Your task to perform on an android device: Show me recent news Image 0: 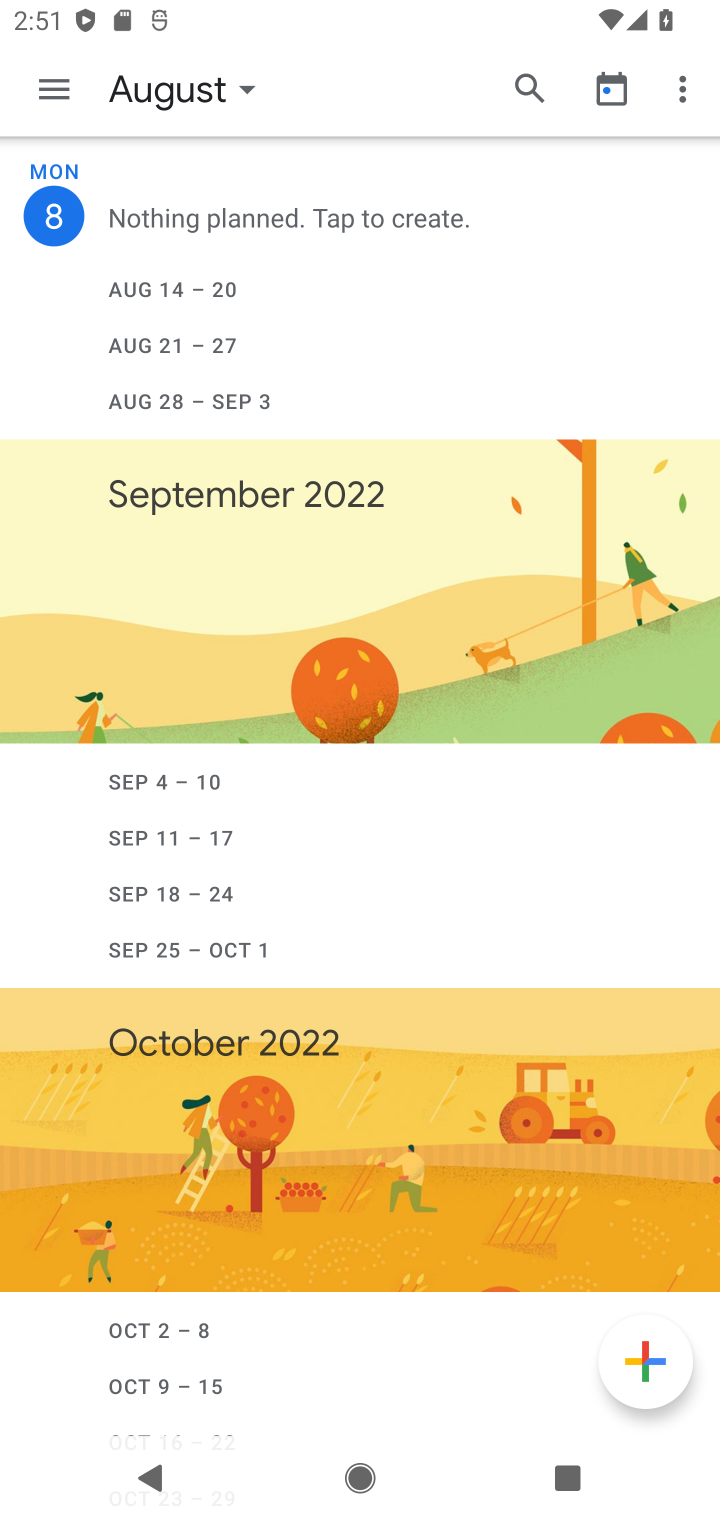
Step 0: press home button
Your task to perform on an android device: Show me recent news Image 1: 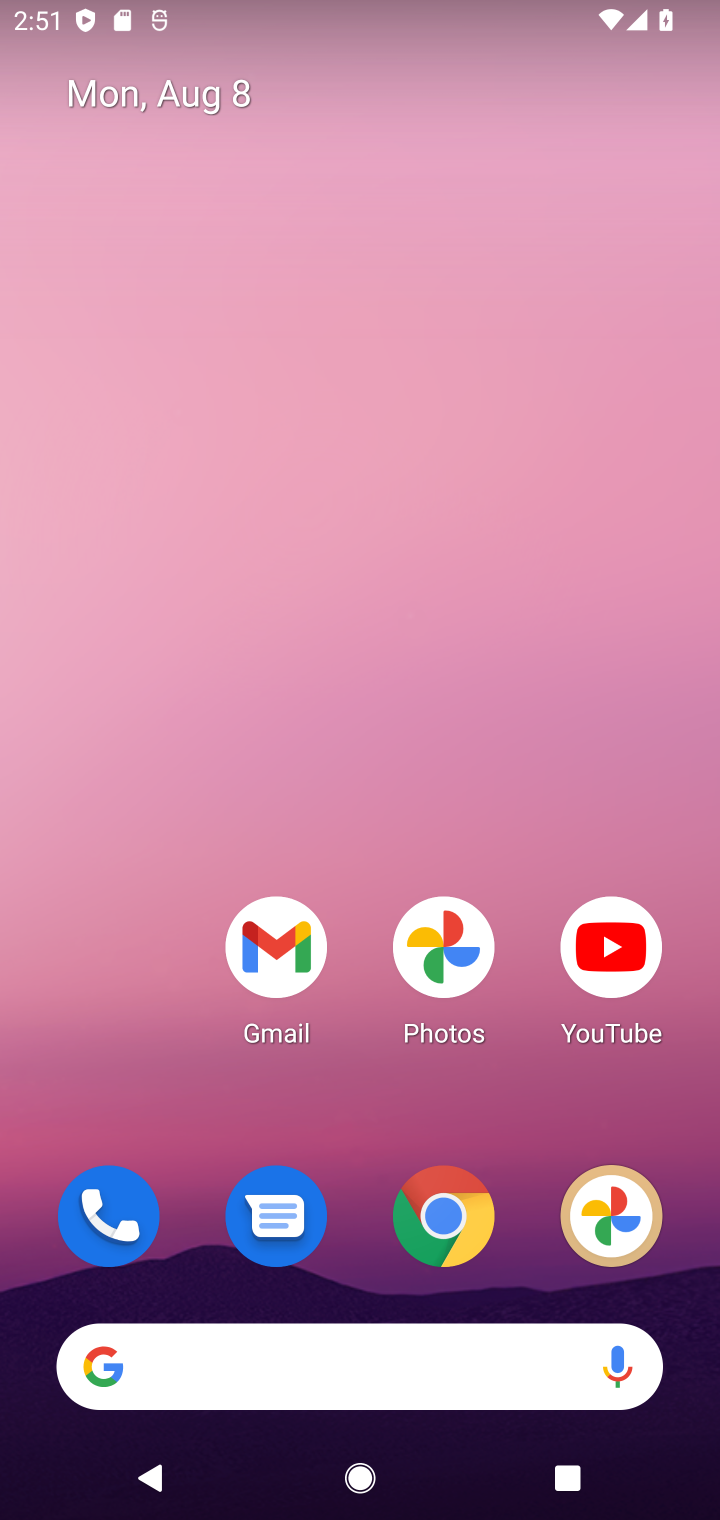
Step 1: drag from (688, 1159) to (650, 490)
Your task to perform on an android device: Show me recent news Image 2: 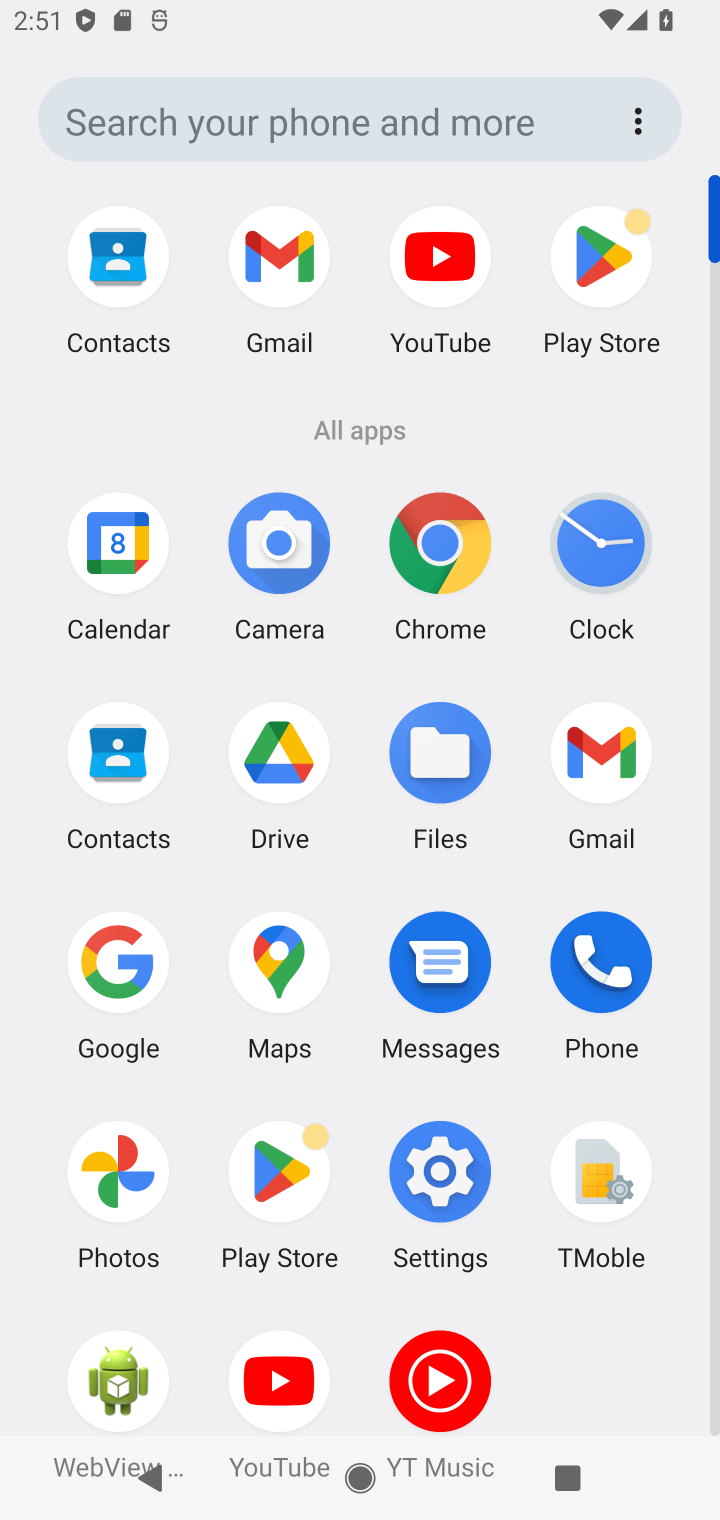
Step 2: click (448, 535)
Your task to perform on an android device: Show me recent news Image 3: 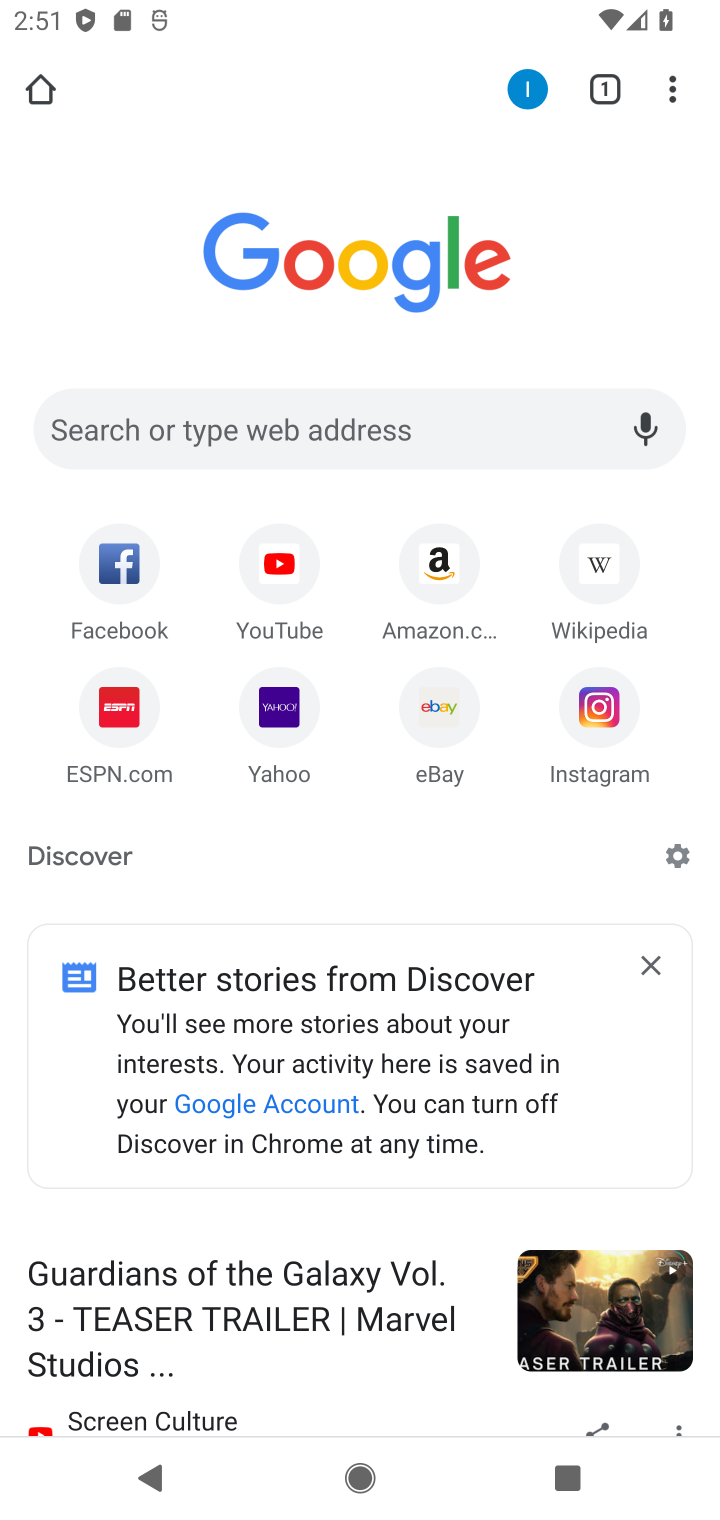
Step 3: click (371, 419)
Your task to perform on an android device: Show me recent news Image 4: 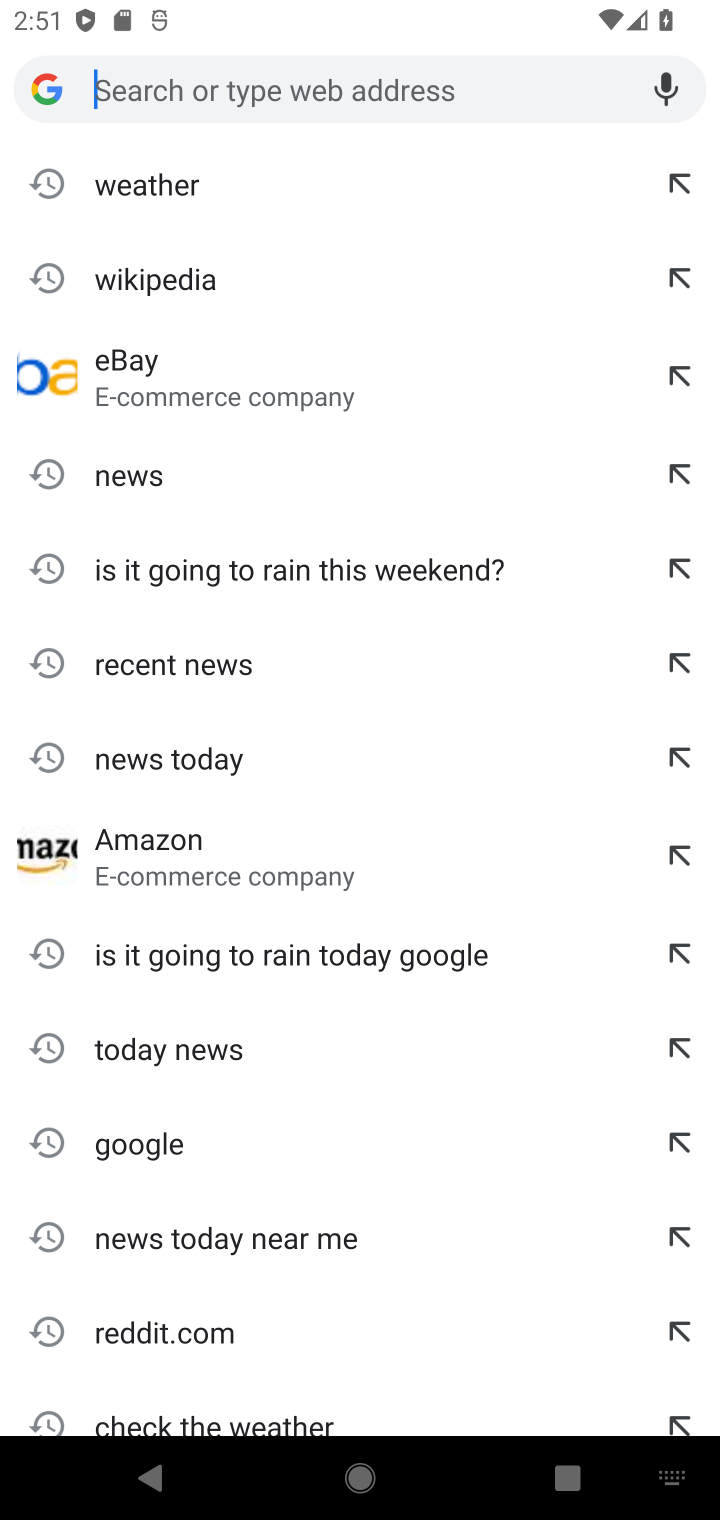
Step 4: click (235, 658)
Your task to perform on an android device: Show me recent news Image 5: 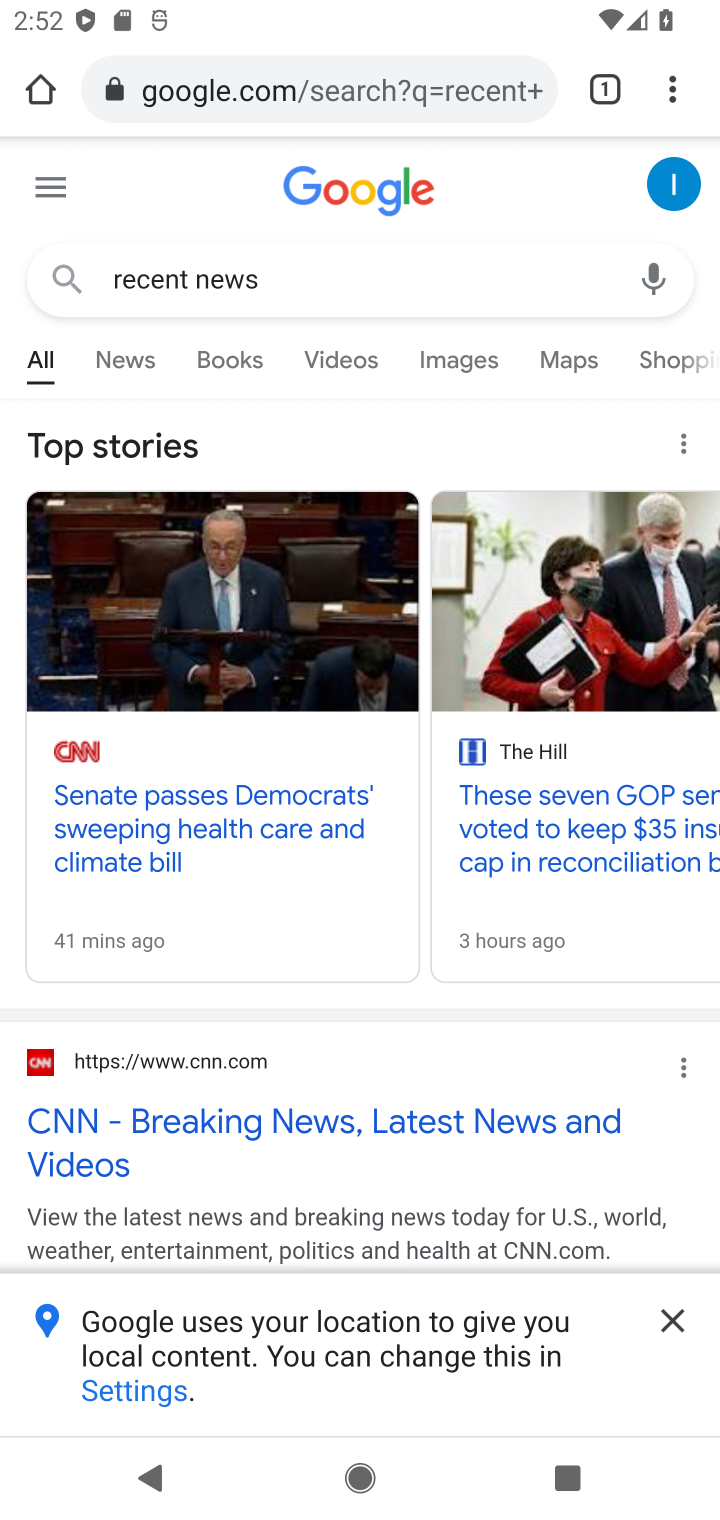
Step 5: task complete